Your task to perform on an android device: turn off picture-in-picture Image 0: 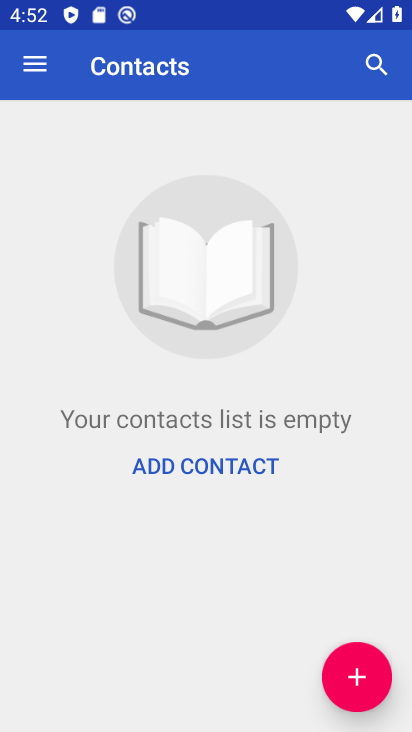
Step 0: press home button
Your task to perform on an android device: turn off picture-in-picture Image 1: 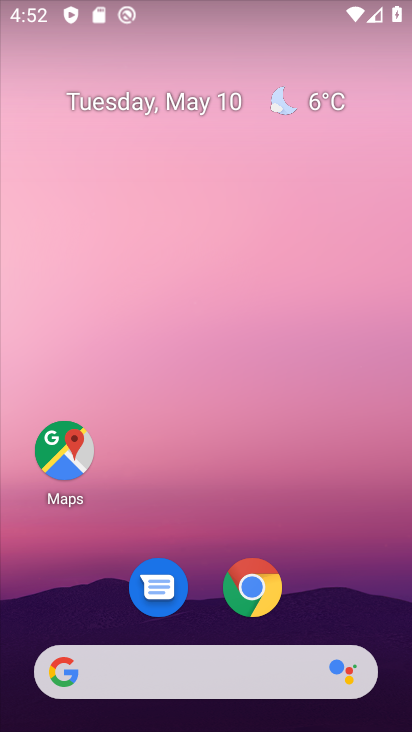
Step 1: drag from (202, 627) to (275, 114)
Your task to perform on an android device: turn off picture-in-picture Image 2: 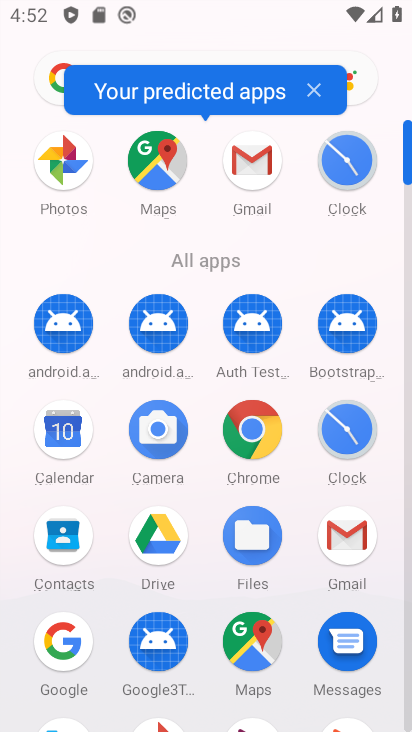
Step 2: drag from (189, 625) to (250, 314)
Your task to perform on an android device: turn off picture-in-picture Image 3: 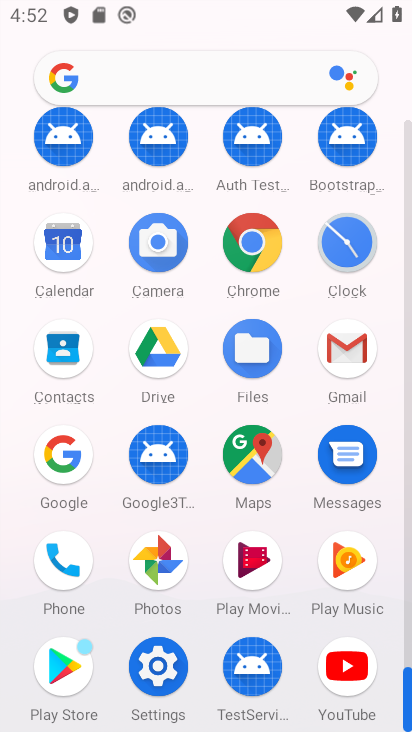
Step 3: click (156, 683)
Your task to perform on an android device: turn off picture-in-picture Image 4: 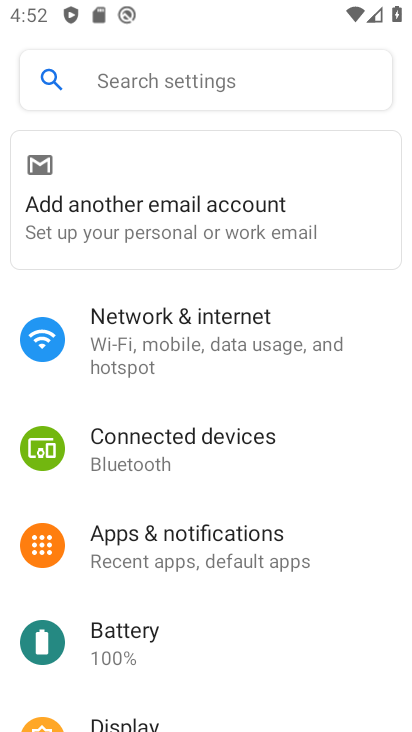
Step 4: drag from (220, 694) to (323, 204)
Your task to perform on an android device: turn off picture-in-picture Image 5: 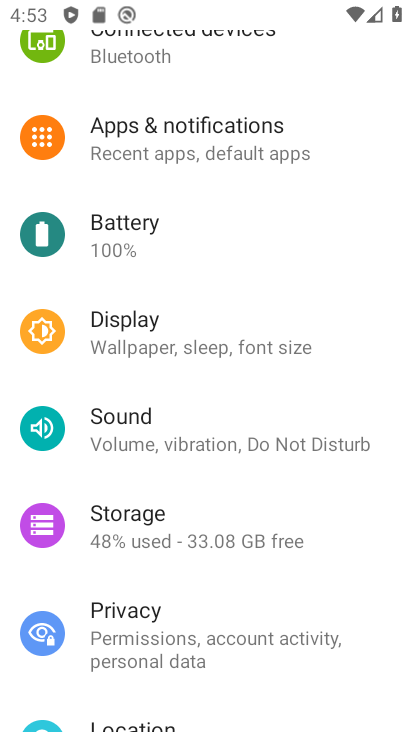
Step 5: click (211, 145)
Your task to perform on an android device: turn off picture-in-picture Image 6: 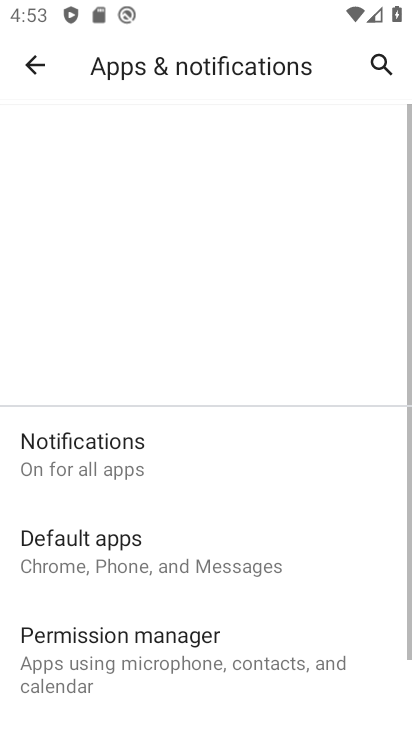
Step 6: drag from (239, 586) to (319, 212)
Your task to perform on an android device: turn off picture-in-picture Image 7: 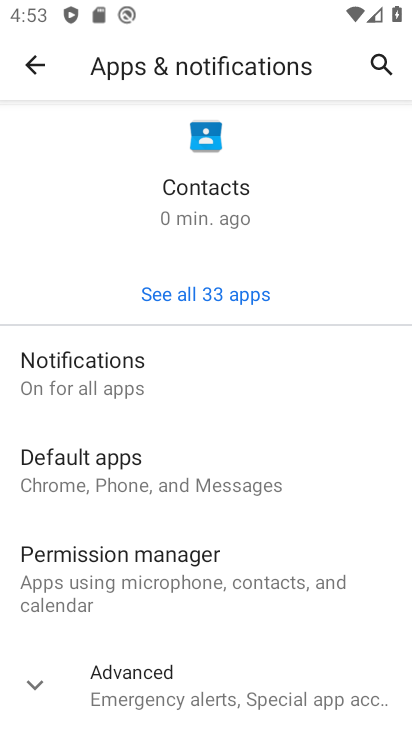
Step 7: click (181, 672)
Your task to perform on an android device: turn off picture-in-picture Image 8: 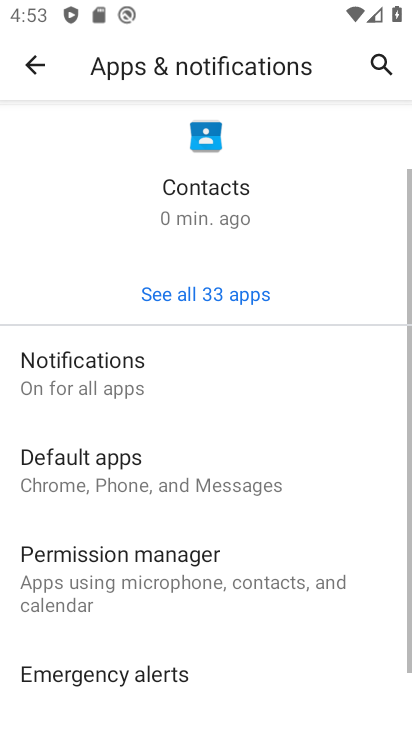
Step 8: drag from (198, 681) to (361, 168)
Your task to perform on an android device: turn off picture-in-picture Image 9: 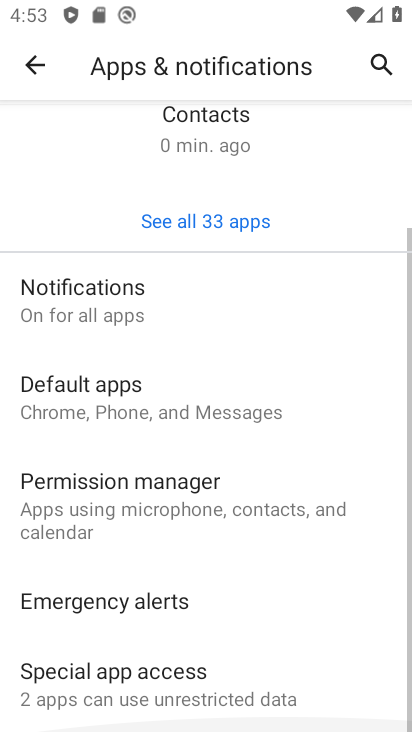
Step 9: click (137, 677)
Your task to perform on an android device: turn off picture-in-picture Image 10: 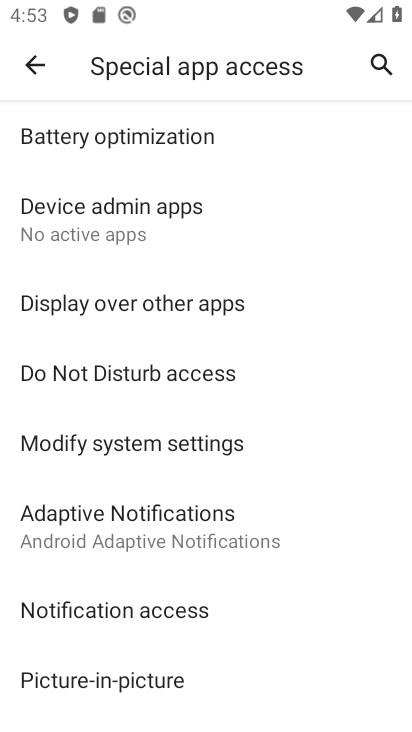
Step 10: click (140, 672)
Your task to perform on an android device: turn off picture-in-picture Image 11: 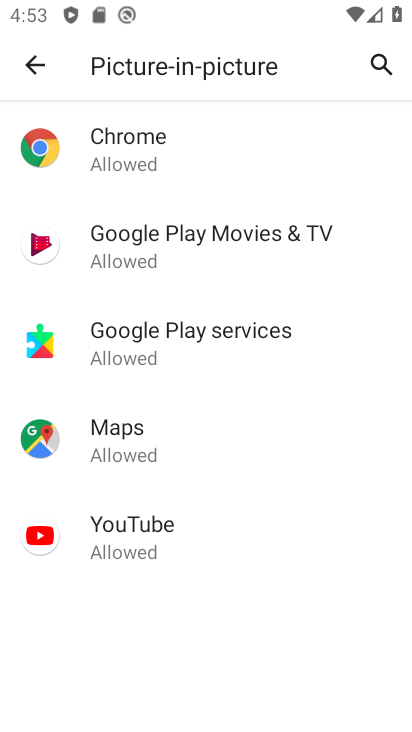
Step 11: click (199, 156)
Your task to perform on an android device: turn off picture-in-picture Image 12: 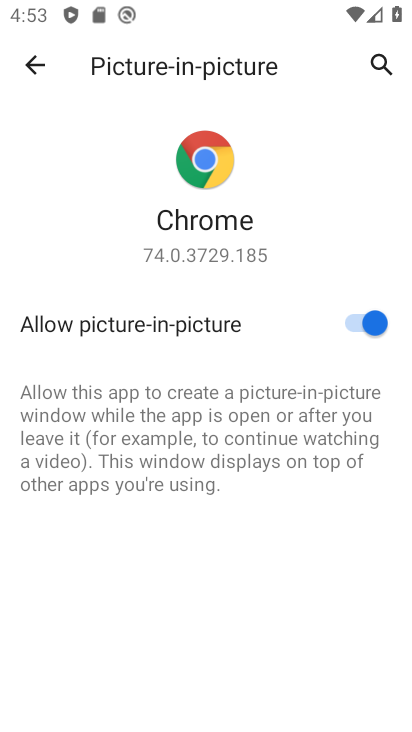
Step 12: click (350, 324)
Your task to perform on an android device: turn off picture-in-picture Image 13: 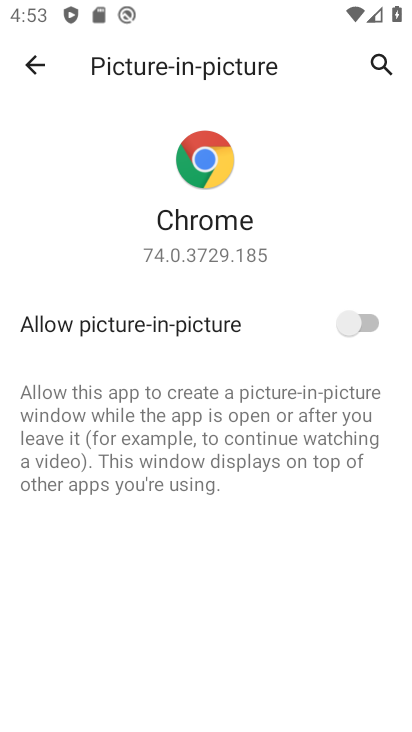
Step 13: click (57, 65)
Your task to perform on an android device: turn off picture-in-picture Image 14: 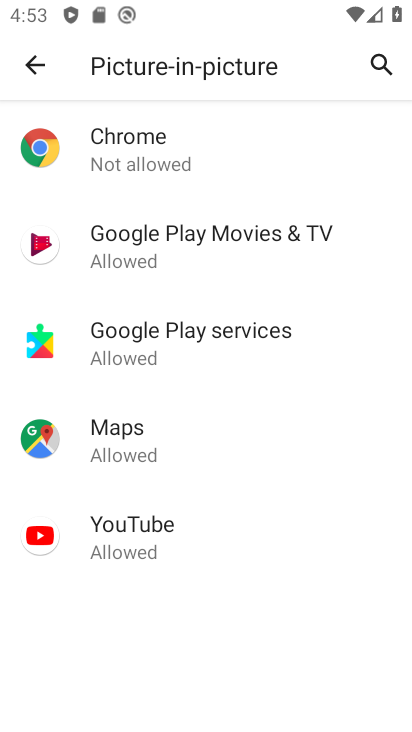
Step 14: click (242, 219)
Your task to perform on an android device: turn off picture-in-picture Image 15: 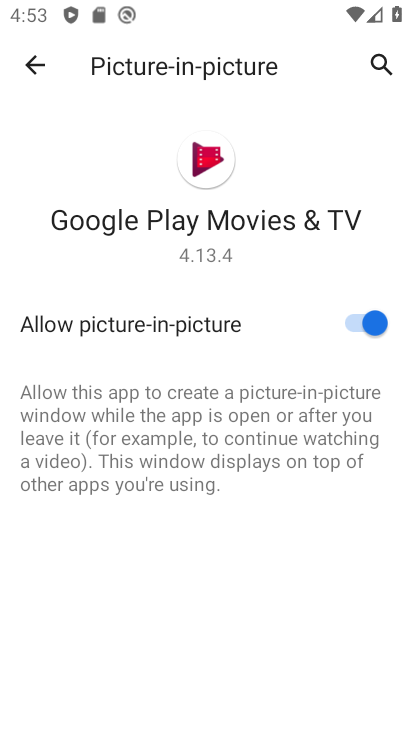
Step 15: click (344, 320)
Your task to perform on an android device: turn off picture-in-picture Image 16: 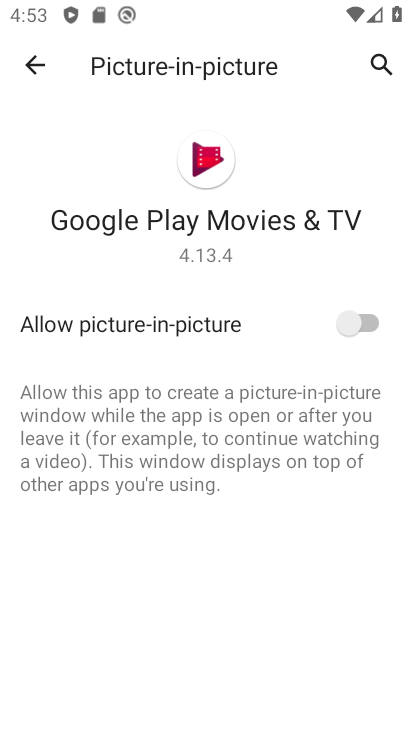
Step 16: click (26, 65)
Your task to perform on an android device: turn off picture-in-picture Image 17: 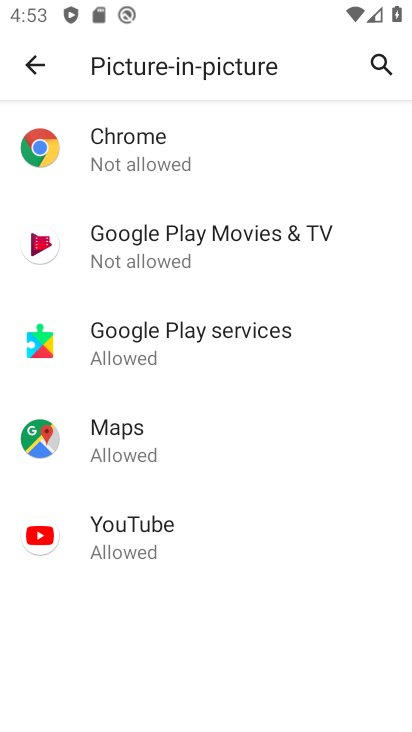
Step 17: click (230, 337)
Your task to perform on an android device: turn off picture-in-picture Image 18: 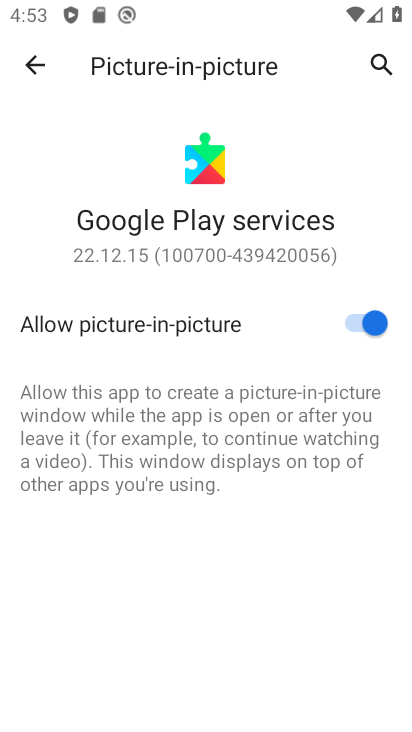
Step 18: click (352, 321)
Your task to perform on an android device: turn off picture-in-picture Image 19: 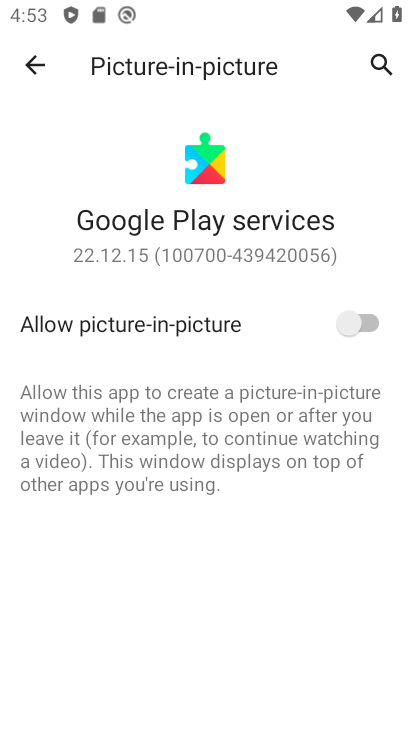
Step 19: click (37, 73)
Your task to perform on an android device: turn off picture-in-picture Image 20: 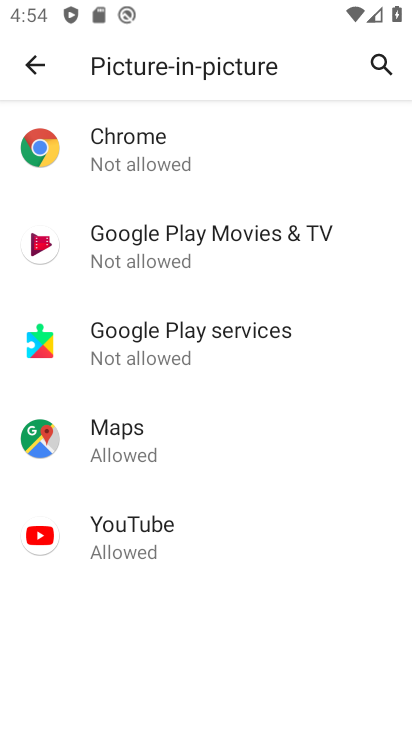
Step 20: click (190, 425)
Your task to perform on an android device: turn off picture-in-picture Image 21: 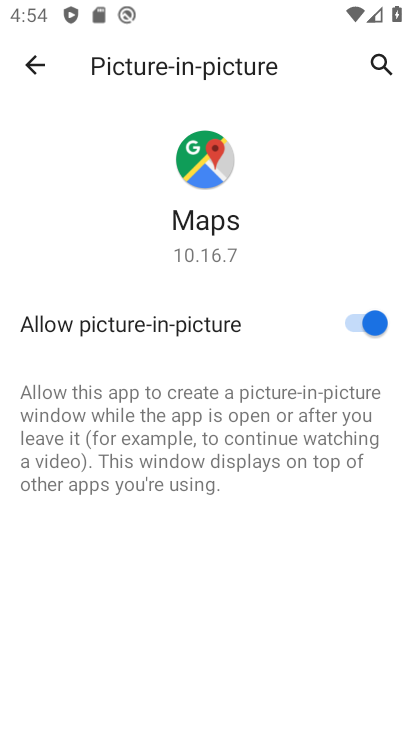
Step 21: click (355, 321)
Your task to perform on an android device: turn off picture-in-picture Image 22: 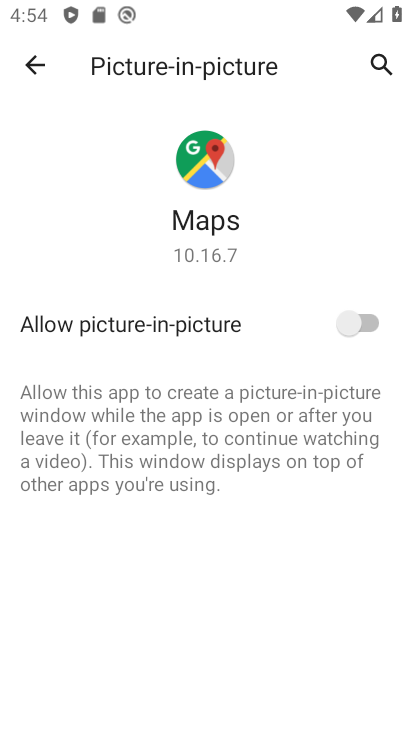
Step 22: click (34, 67)
Your task to perform on an android device: turn off picture-in-picture Image 23: 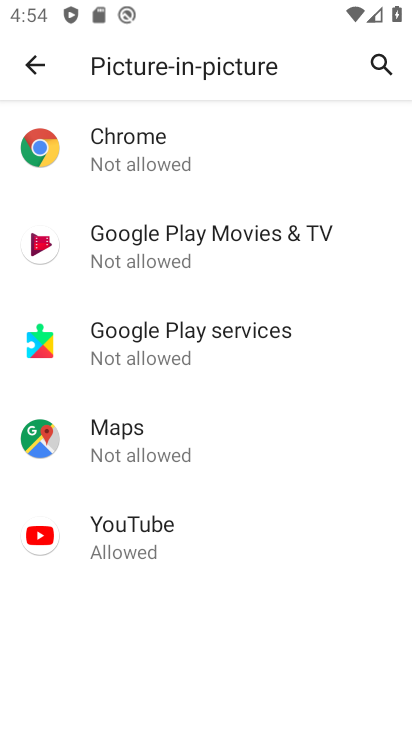
Step 23: click (192, 516)
Your task to perform on an android device: turn off picture-in-picture Image 24: 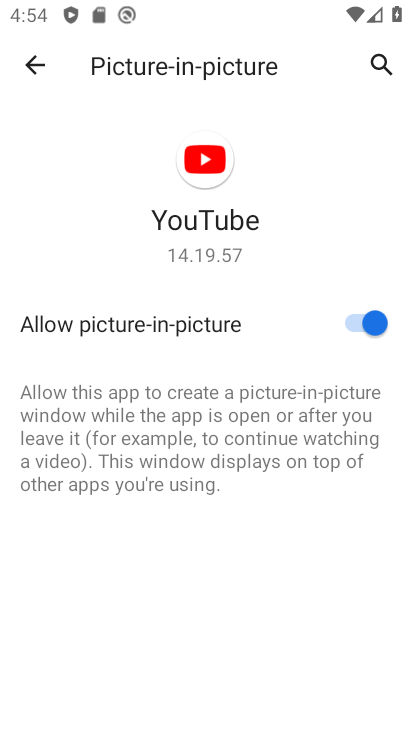
Step 24: click (347, 320)
Your task to perform on an android device: turn off picture-in-picture Image 25: 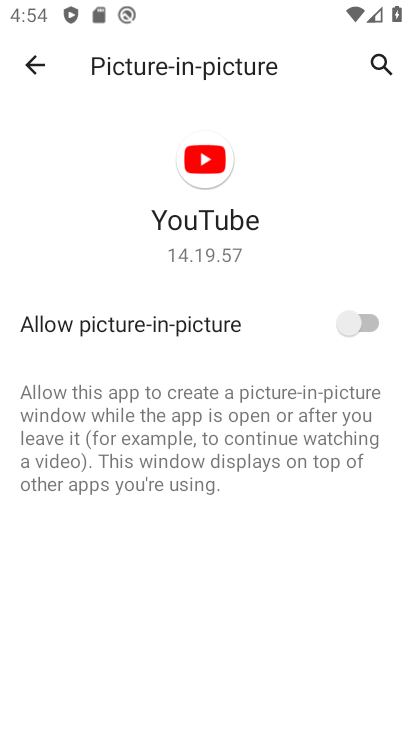
Step 25: task complete